Your task to perform on an android device: Open Google Maps Image 0: 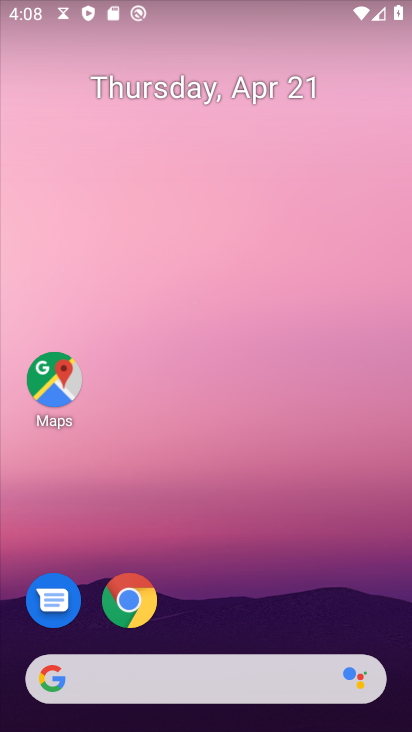
Step 0: click (53, 381)
Your task to perform on an android device: Open Google Maps Image 1: 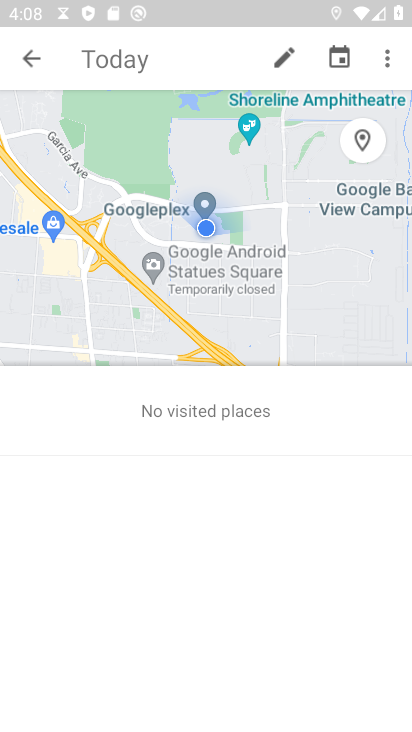
Step 1: task complete